Your task to perform on an android device: Do I have any events today? Image 0: 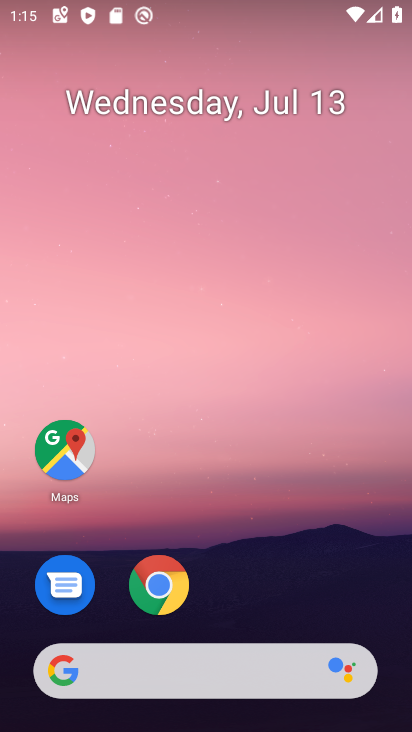
Step 0: drag from (142, 685) to (319, 99)
Your task to perform on an android device: Do I have any events today? Image 1: 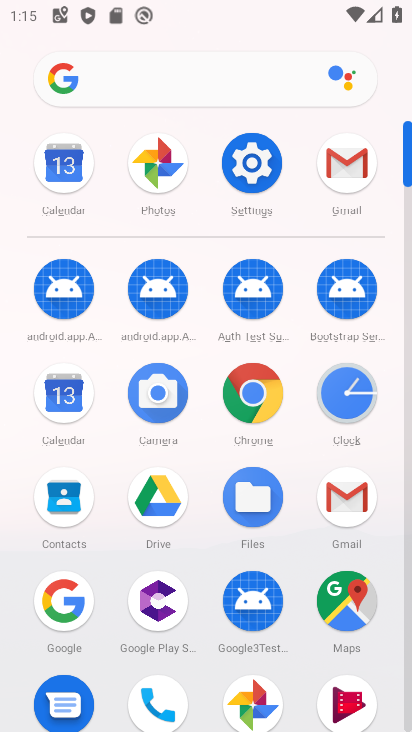
Step 1: click (63, 399)
Your task to perform on an android device: Do I have any events today? Image 2: 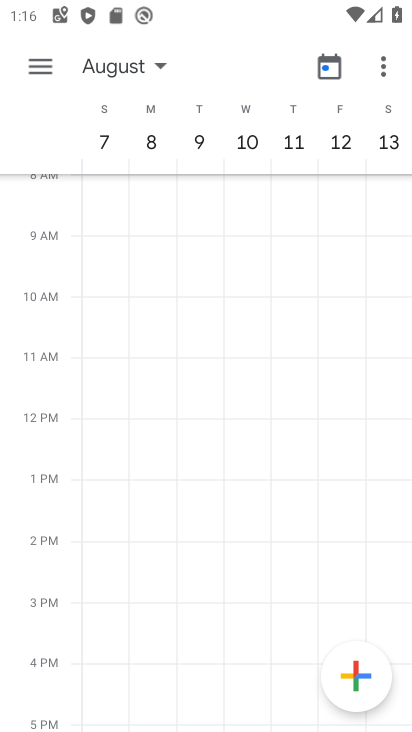
Step 2: click (89, 70)
Your task to perform on an android device: Do I have any events today? Image 3: 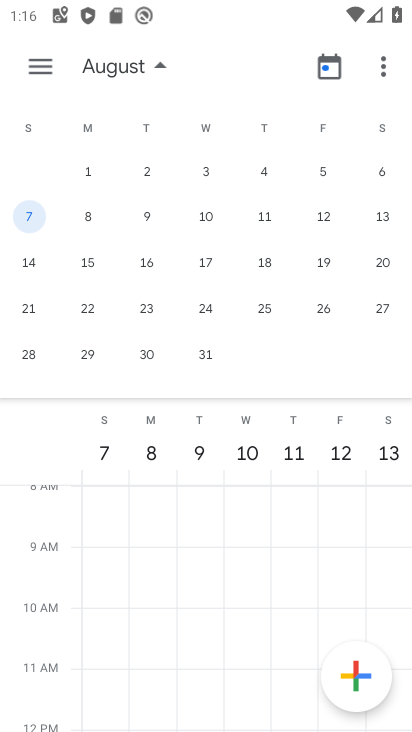
Step 3: drag from (87, 274) to (388, 302)
Your task to perform on an android device: Do I have any events today? Image 4: 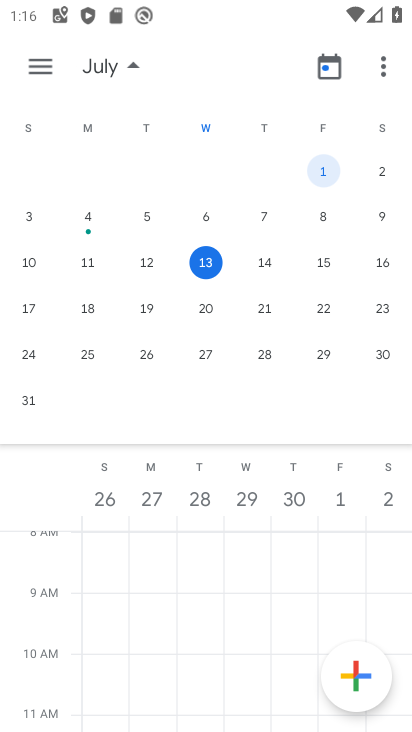
Step 4: click (202, 266)
Your task to perform on an android device: Do I have any events today? Image 5: 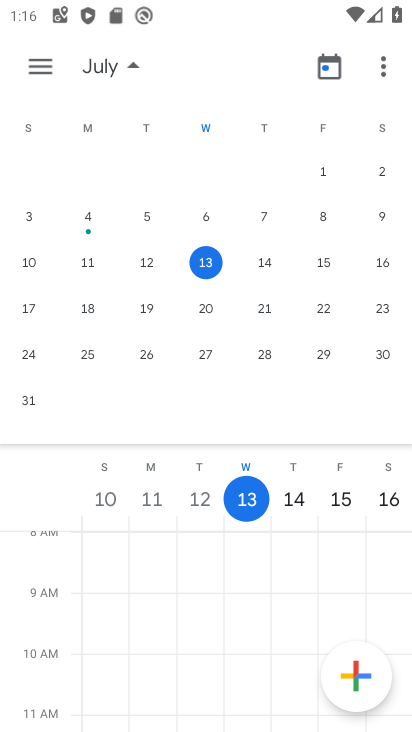
Step 5: click (35, 64)
Your task to perform on an android device: Do I have any events today? Image 6: 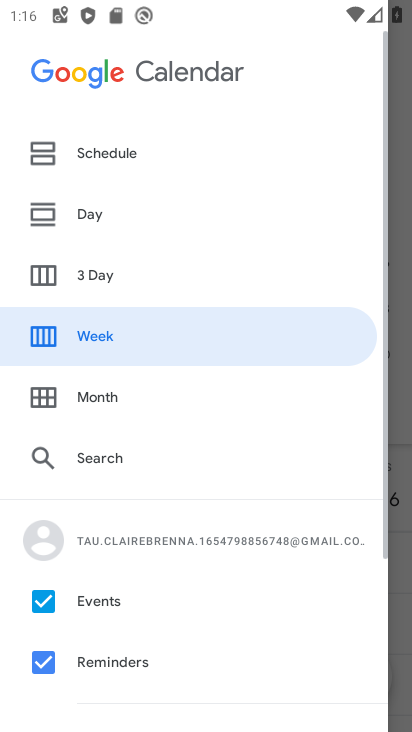
Step 6: click (96, 210)
Your task to perform on an android device: Do I have any events today? Image 7: 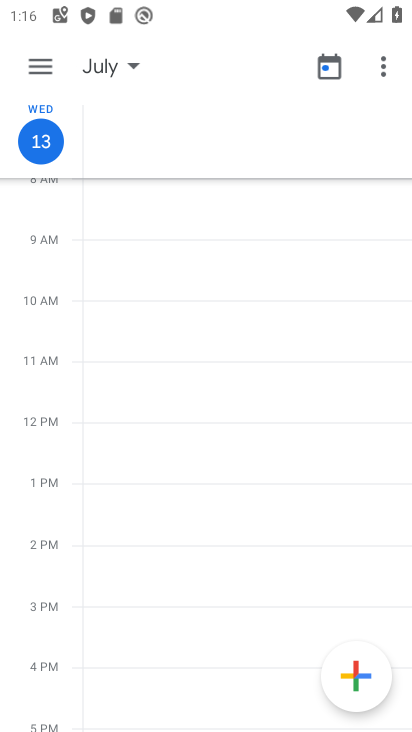
Step 7: click (34, 69)
Your task to perform on an android device: Do I have any events today? Image 8: 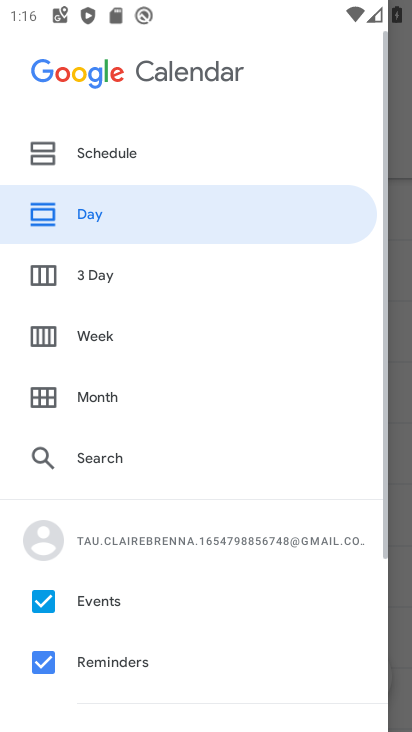
Step 8: click (112, 141)
Your task to perform on an android device: Do I have any events today? Image 9: 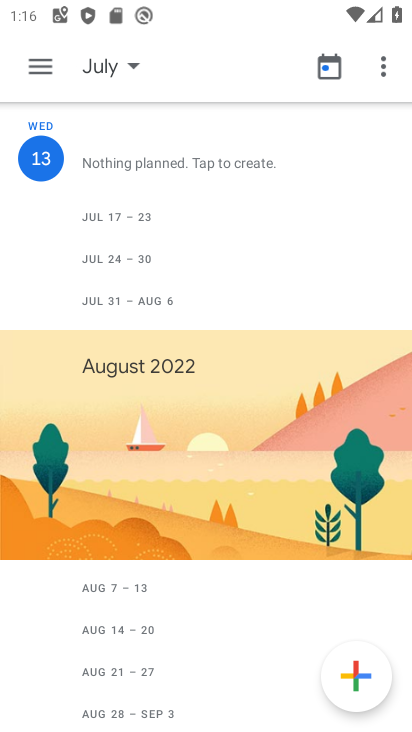
Step 9: task complete